Your task to perform on an android device: change the clock display to analog Image 0: 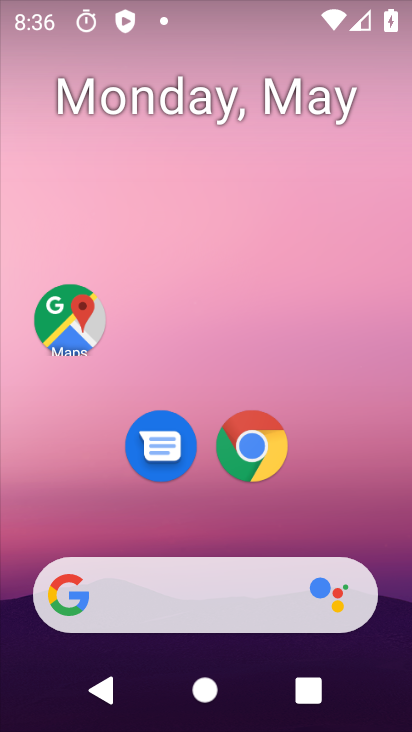
Step 0: drag from (367, 542) to (331, 14)
Your task to perform on an android device: change the clock display to analog Image 1: 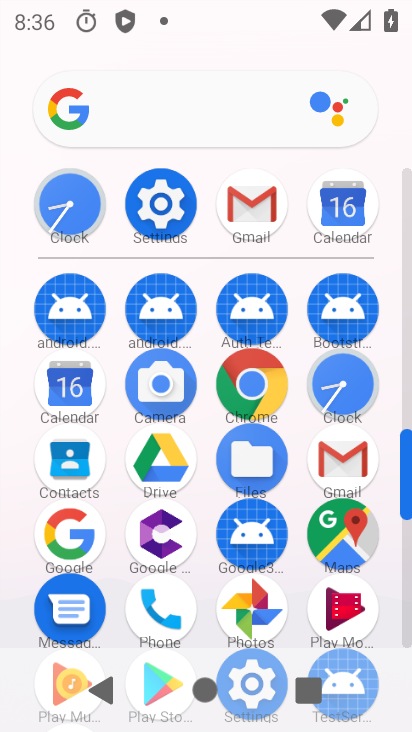
Step 1: click (60, 196)
Your task to perform on an android device: change the clock display to analog Image 2: 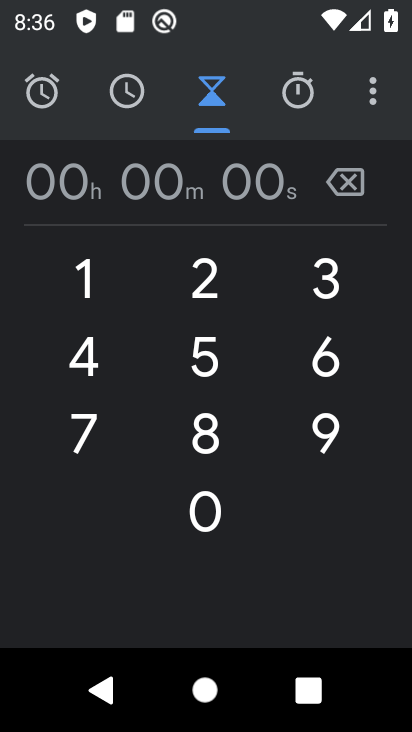
Step 2: click (372, 95)
Your task to perform on an android device: change the clock display to analog Image 3: 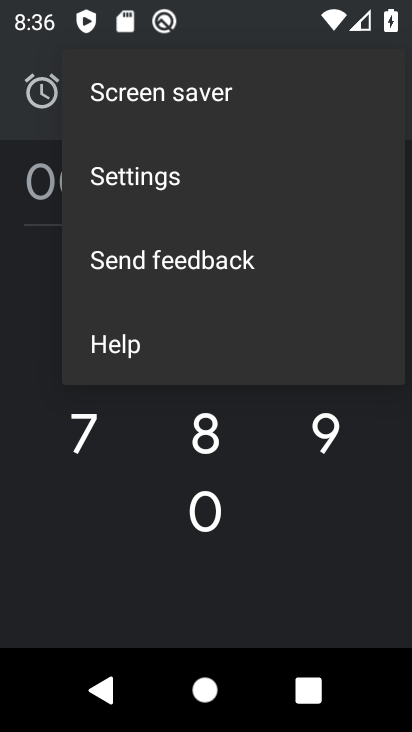
Step 3: click (123, 173)
Your task to perform on an android device: change the clock display to analog Image 4: 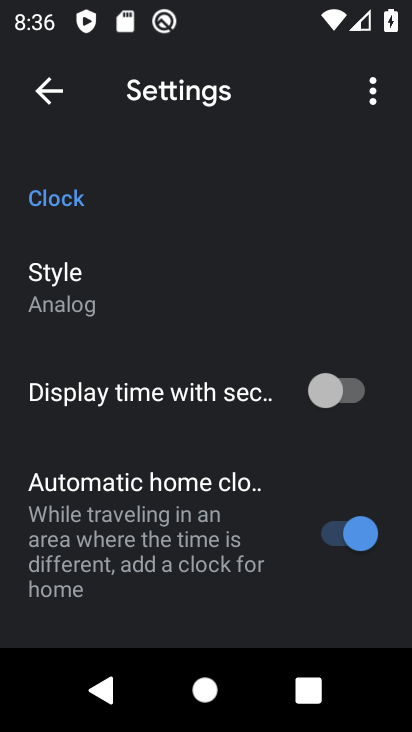
Step 4: task complete